Your task to perform on an android device: Go to CNN.com Image 0: 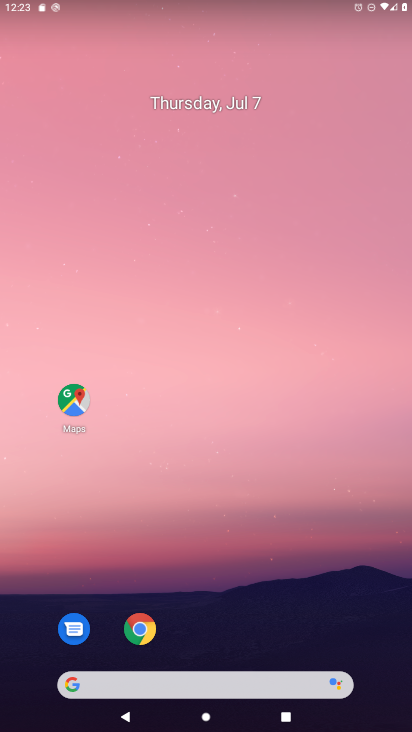
Step 0: click (152, 622)
Your task to perform on an android device: Go to CNN.com Image 1: 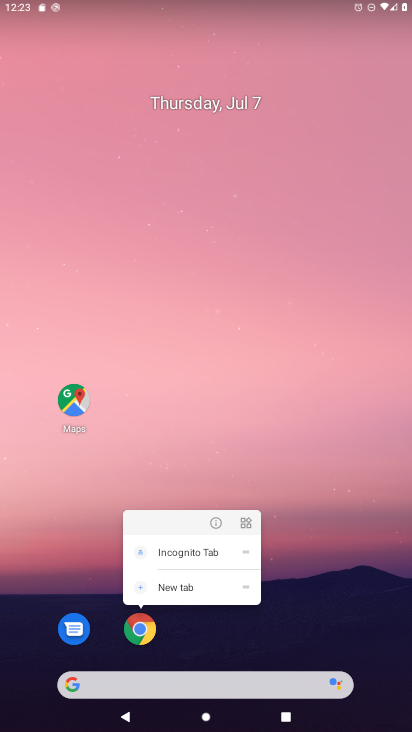
Step 1: click (144, 618)
Your task to perform on an android device: Go to CNN.com Image 2: 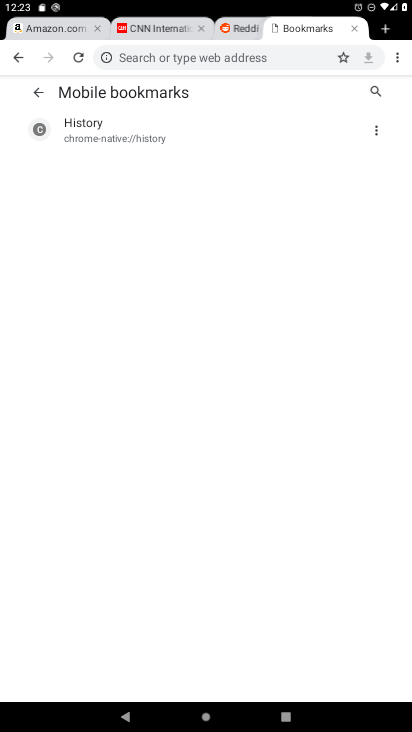
Step 2: click (156, 27)
Your task to perform on an android device: Go to CNN.com Image 3: 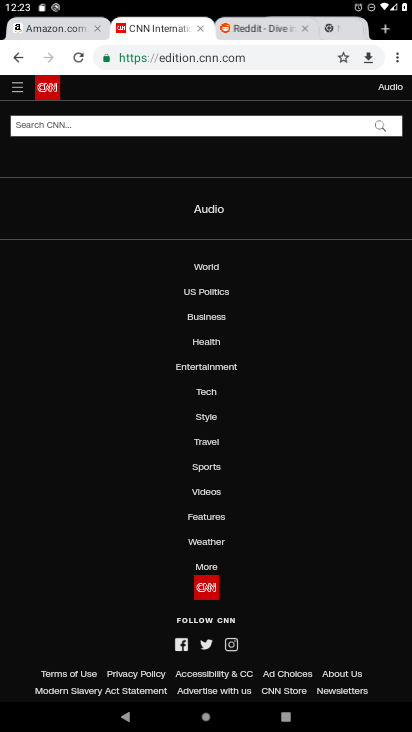
Step 3: task complete